Your task to perform on an android device: Open notification settings Image 0: 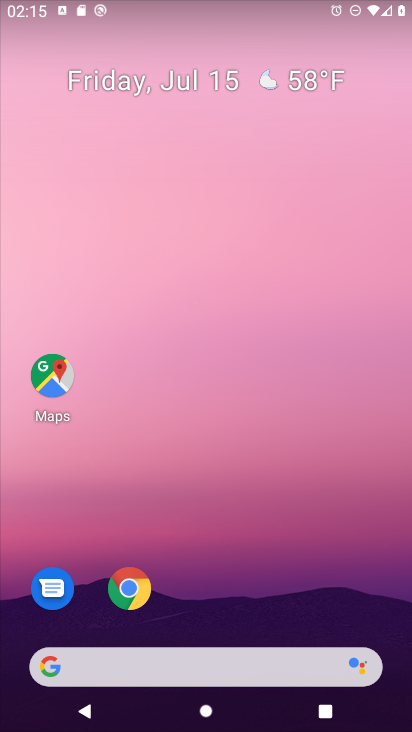
Step 0: drag from (377, 606) to (336, 47)
Your task to perform on an android device: Open notification settings Image 1: 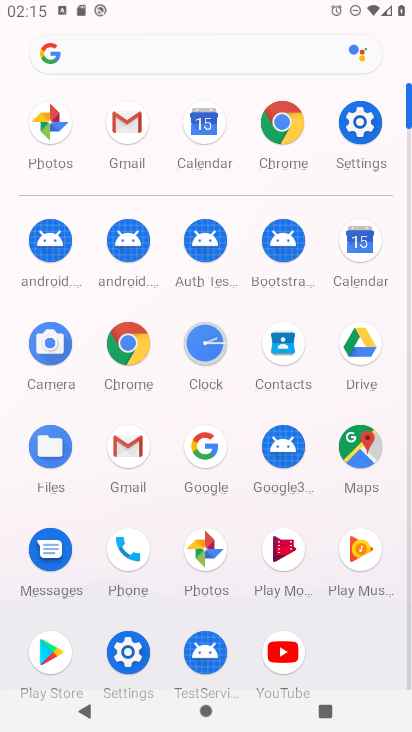
Step 1: click (126, 648)
Your task to perform on an android device: Open notification settings Image 2: 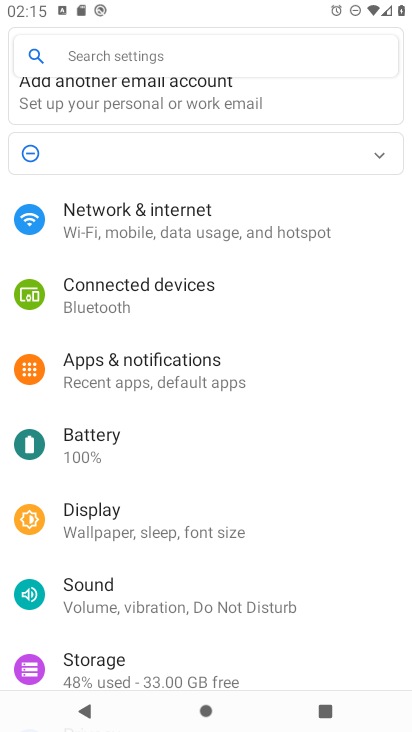
Step 2: click (125, 370)
Your task to perform on an android device: Open notification settings Image 3: 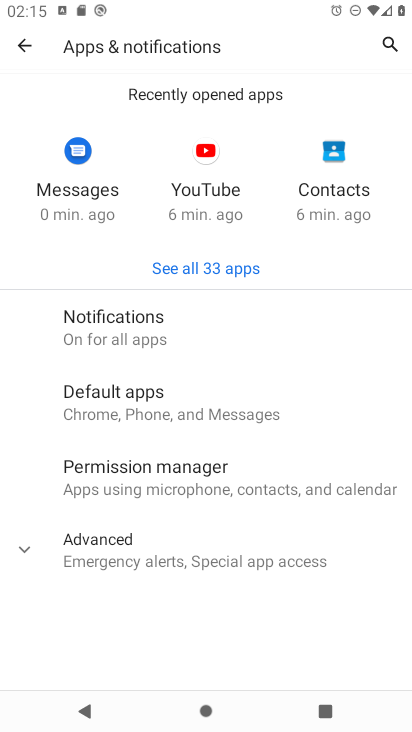
Step 3: click (99, 326)
Your task to perform on an android device: Open notification settings Image 4: 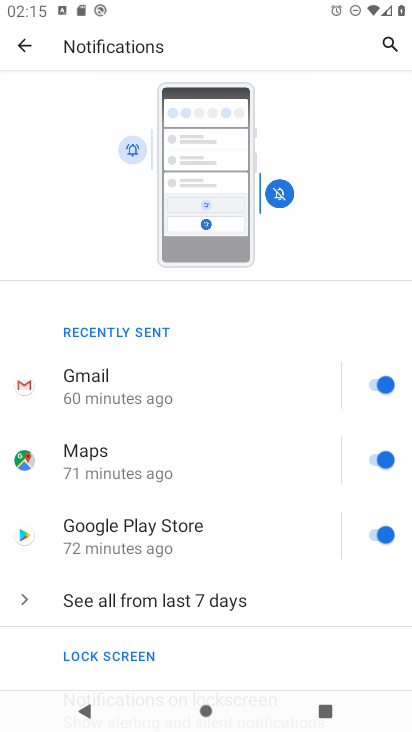
Step 4: drag from (276, 637) to (268, 129)
Your task to perform on an android device: Open notification settings Image 5: 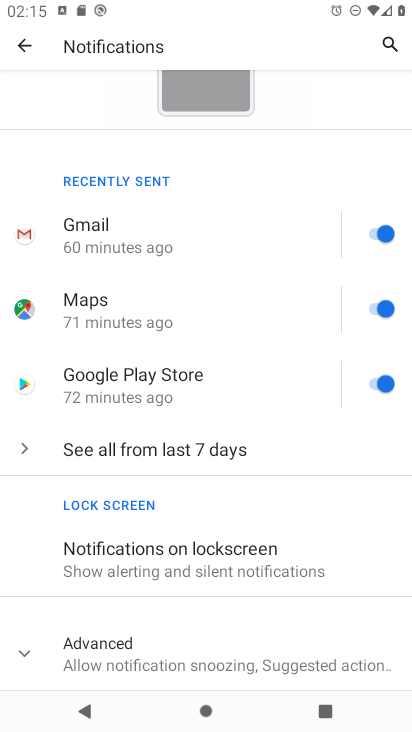
Step 5: click (20, 652)
Your task to perform on an android device: Open notification settings Image 6: 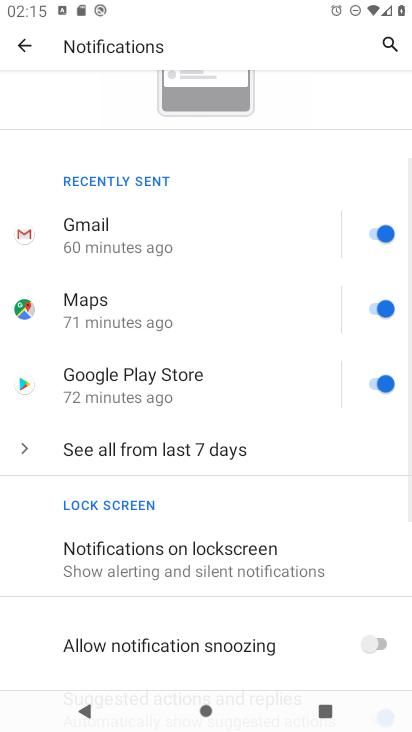
Step 6: task complete